Your task to perform on an android device: create a new album in the google photos Image 0: 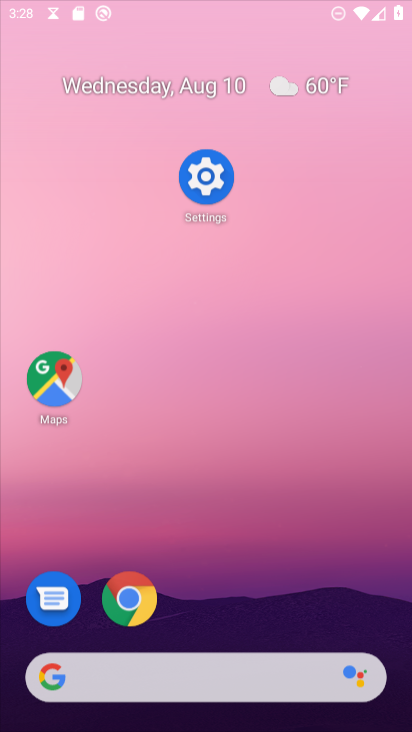
Step 0: press home button
Your task to perform on an android device: create a new album in the google photos Image 1: 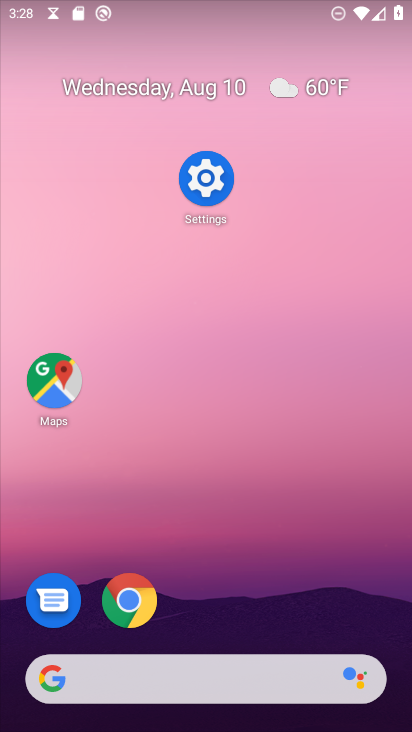
Step 1: drag from (268, 595) to (220, 81)
Your task to perform on an android device: create a new album in the google photos Image 2: 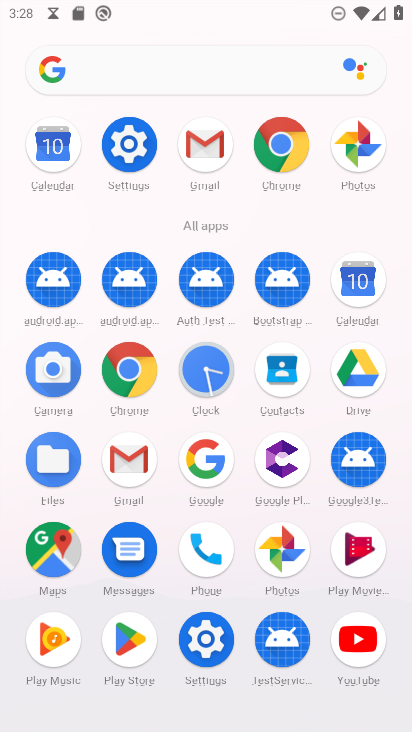
Step 2: click (369, 152)
Your task to perform on an android device: create a new album in the google photos Image 3: 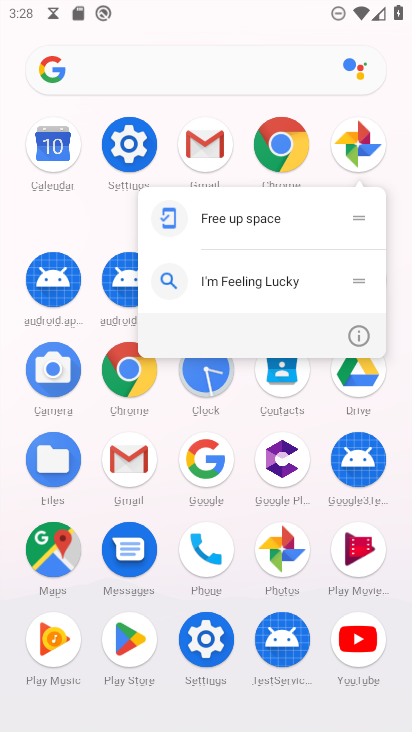
Step 3: click (368, 152)
Your task to perform on an android device: create a new album in the google photos Image 4: 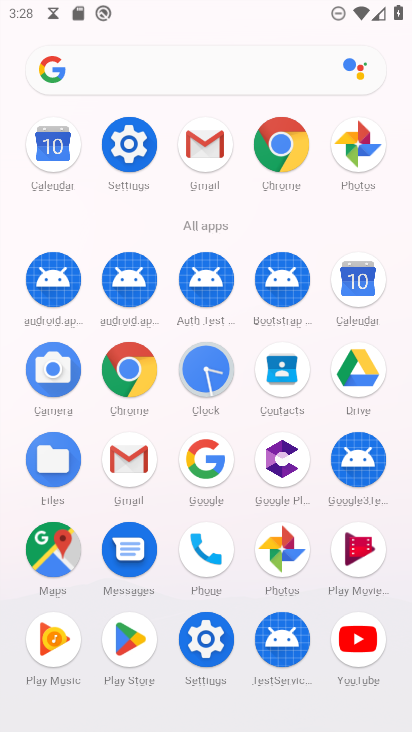
Step 4: click (356, 141)
Your task to perform on an android device: create a new album in the google photos Image 5: 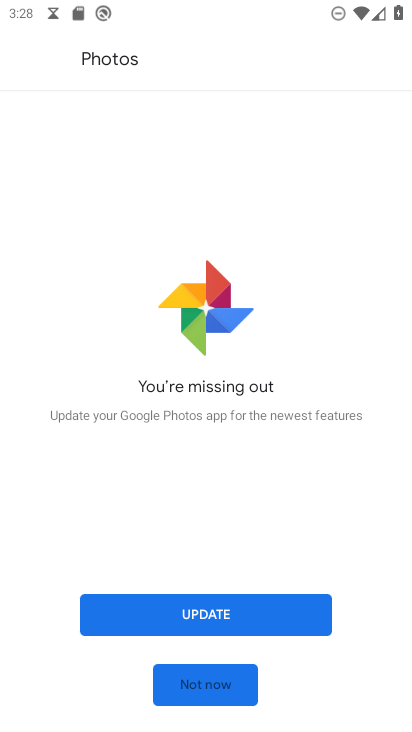
Step 5: click (220, 612)
Your task to perform on an android device: create a new album in the google photos Image 6: 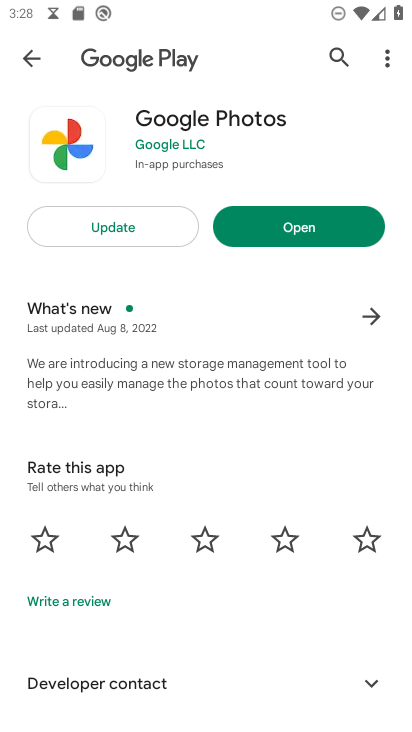
Step 6: click (69, 219)
Your task to perform on an android device: create a new album in the google photos Image 7: 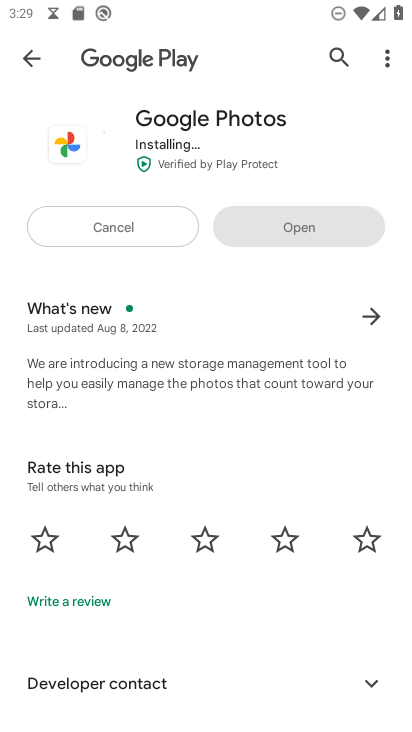
Step 7: click (277, 227)
Your task to perform on an android device: create a new album in the google photos Image 8: 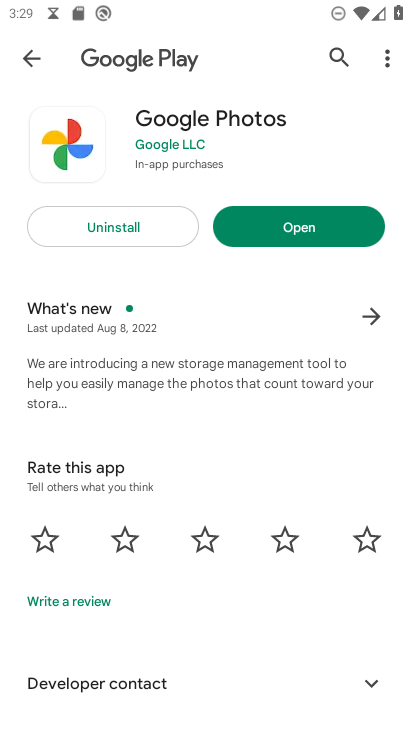
Step 8: click (254, 236)
Your task to perform on an android device: create a new album in the google photos Image 9: 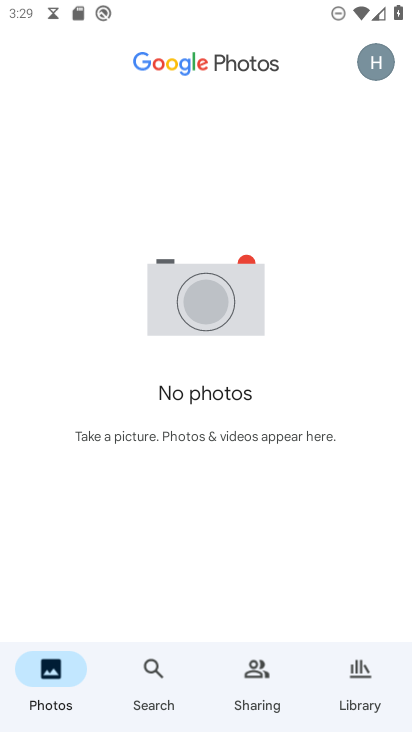
Step 9: task complete